Your task to perform on an android device: Open ESPN.com Image 0: 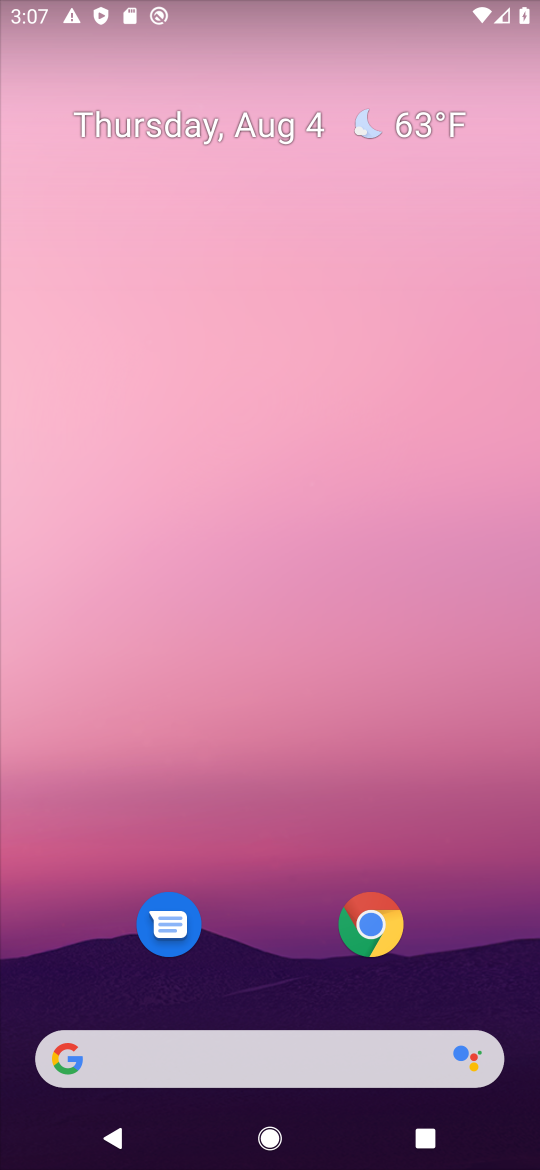
Step 0: click (367, 926)
Your task to perform on an android device: Open ESPN.com Image 1: 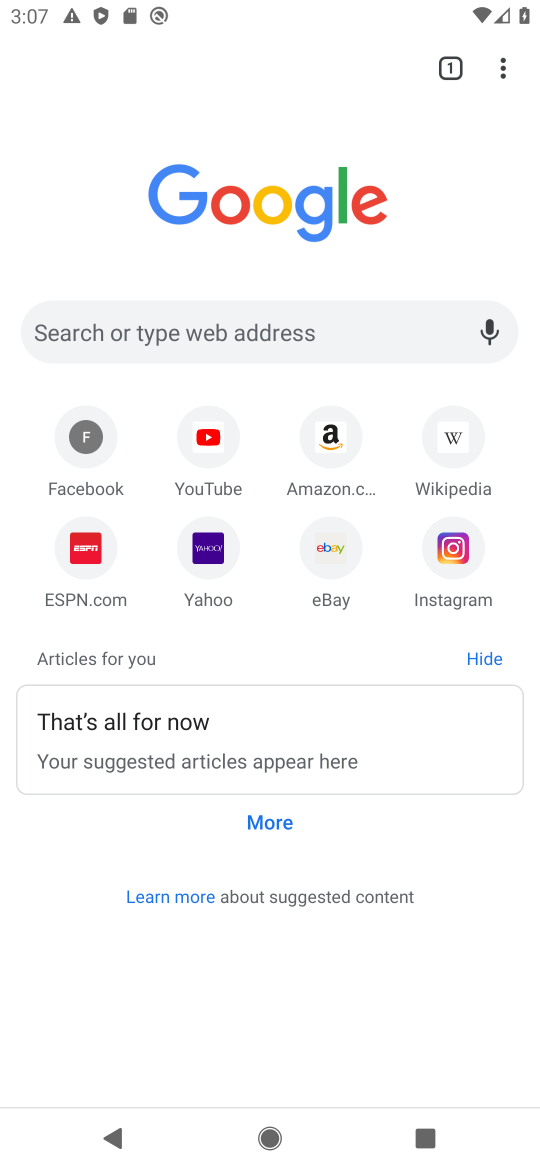
Step 1: click (73, 557)
Your task to perform on an android device: Open ESPN.com Image 2: 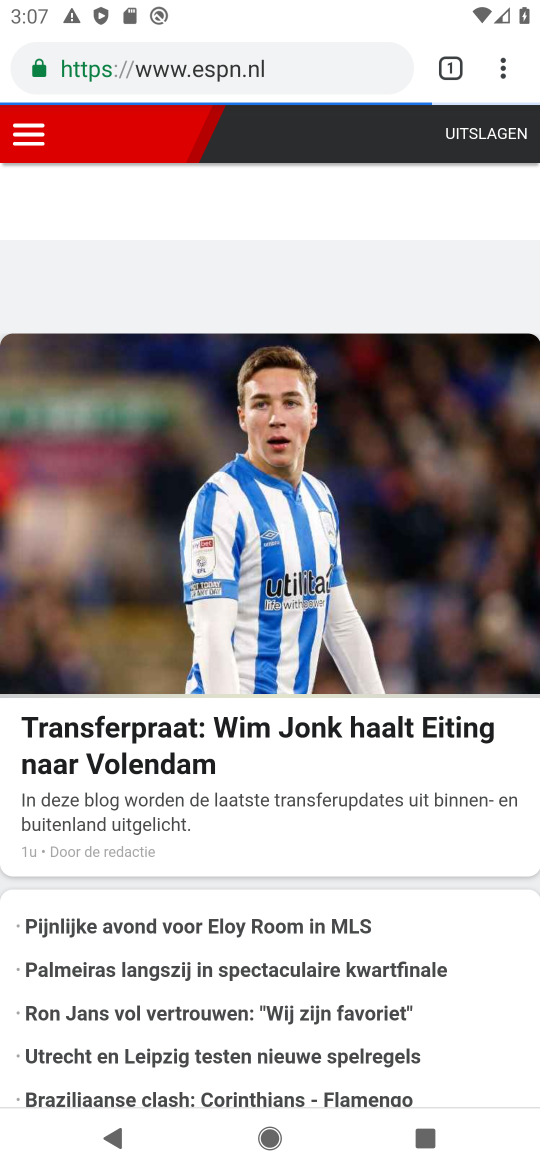
Step 2: task complete